Your task to perform on an android device: Go to eBay Image 0: 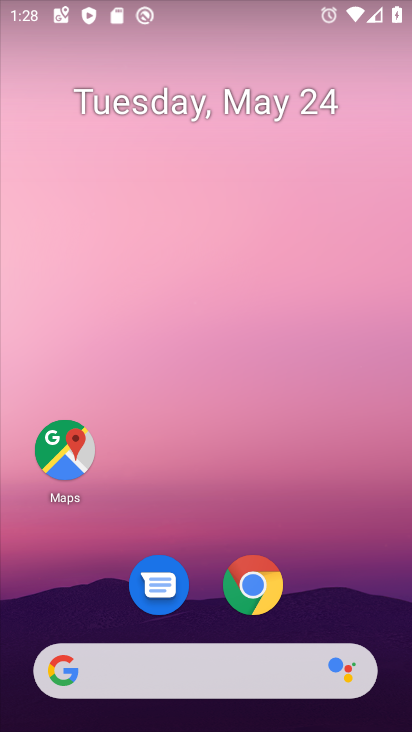
Step 0: click (267, 675)
Your task to perform on an android device: Go to eBay Image 1: 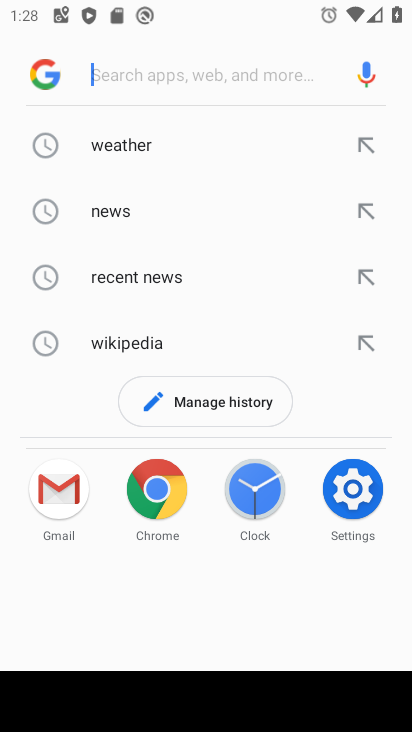
Step 1: type "ebay"
Your task to perform on an android device: Go to eBay Image 2: 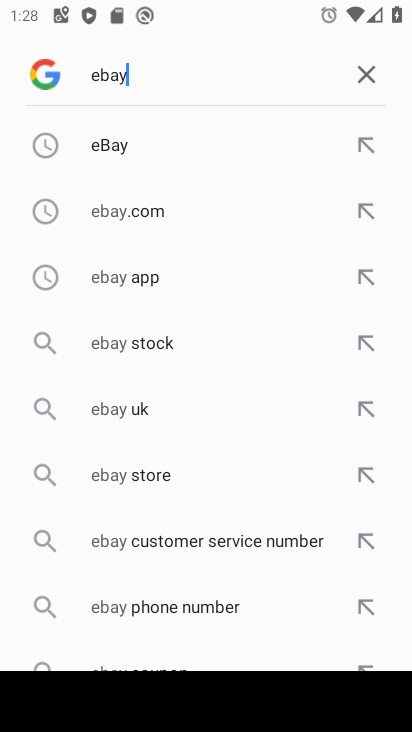
Step 2: click (118, 150)
Your task to perform on an android device: Go to eBay Image 3: 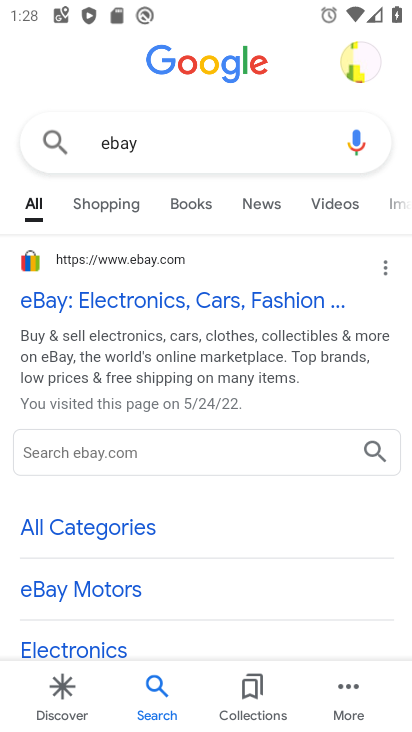
Step 3: click (52, 292)
Your task to perform on an android device: Go to eBay Image 4: 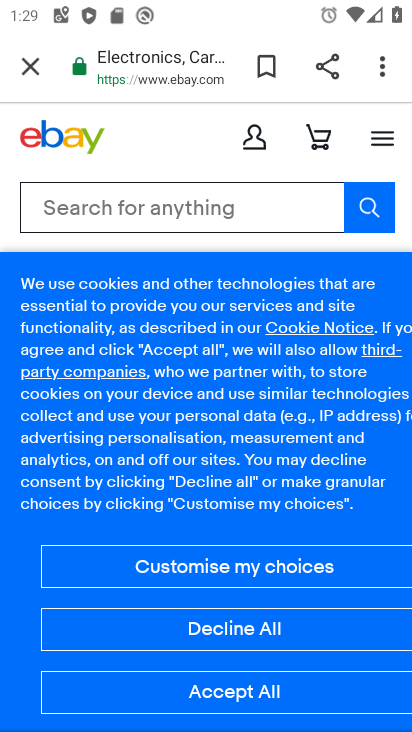
Step 4: task complete